Your task to perform on an android device: turn off smart reply in the gmail app Image 0: 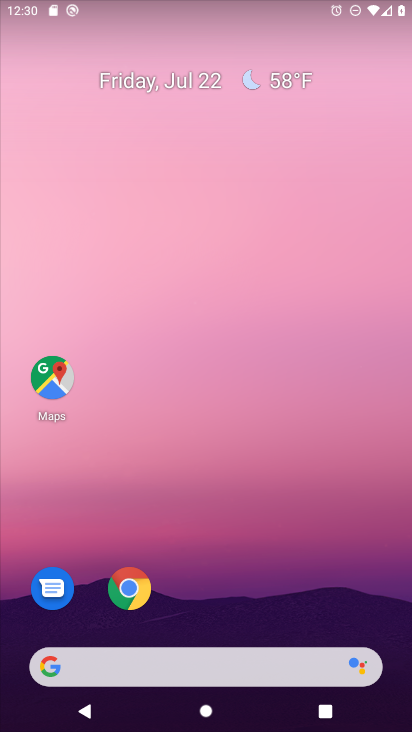
Step 0: drag from (296, 567) to (263, 20)
Your task to perform on an android device: turn off smart reply in the gmail app Image 1: 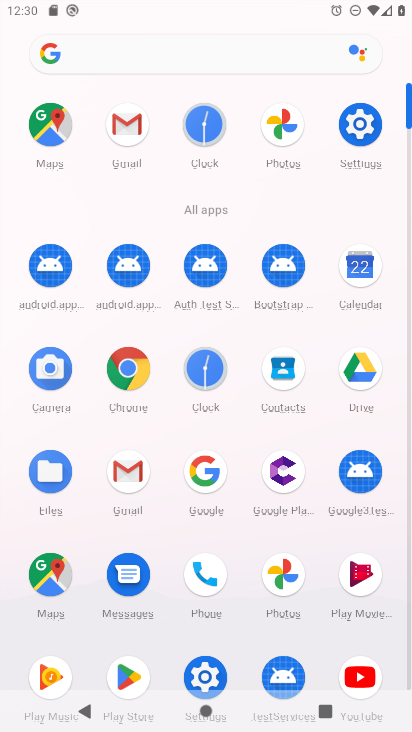
Step 1: click (131, 472)
Your task to perform on an android device: turn off smart reply in the gmail app Image 2: 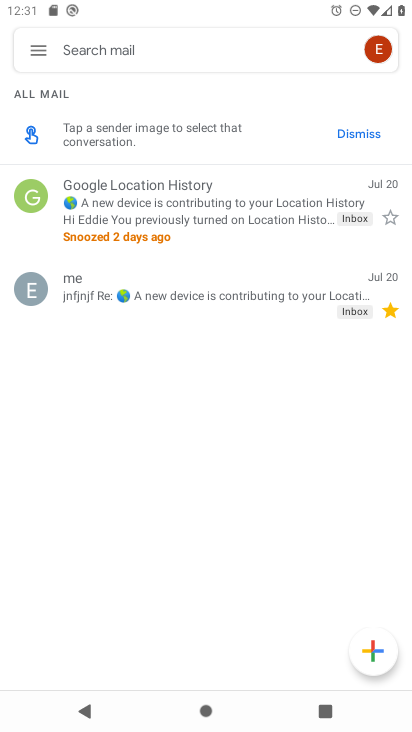
Step 2: click (27, 33)
Your task to perform on an android device: turn off smart reply in the gmail app Image 3: 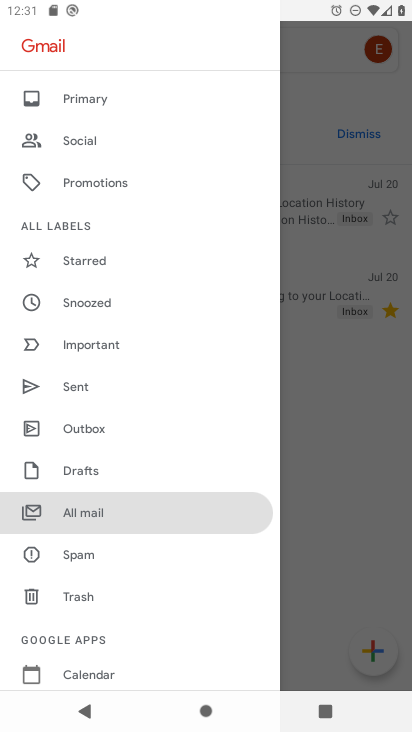
Step 3: drag from (89, 660) to (51, 274)
Your task to perform on an android device: turn off smart reply in the gmail app Image 4: 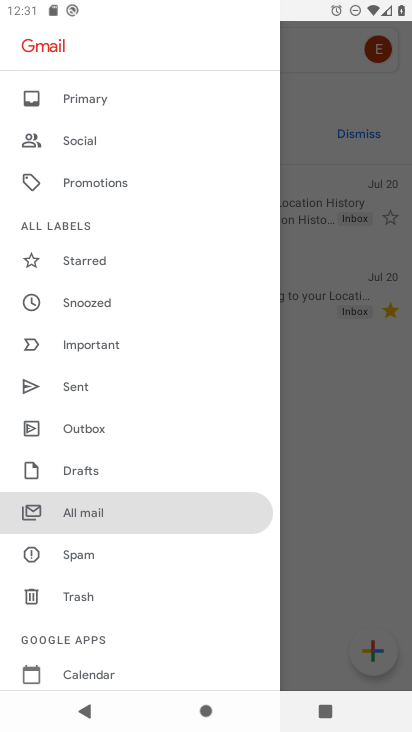
Step 4: drag from (80, 396) to (67, 30)
Your task to perform on an android device: turn off smart reply in the gmail app Image 5: 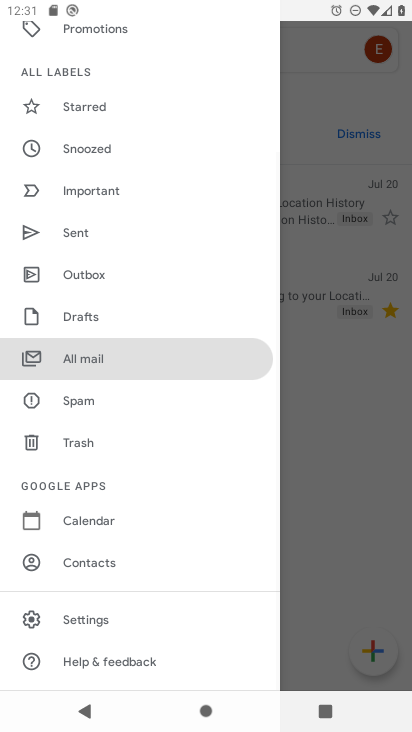
Step 5: click (85, 609)
Your task to perform on an android device: turn off smart reply in the gmail app Image 6: 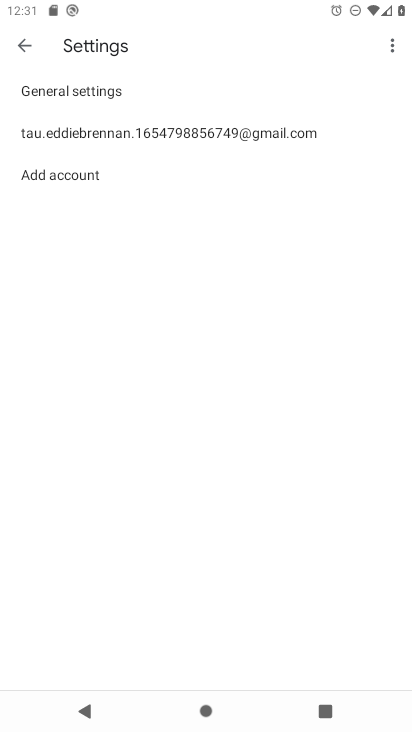
Step 6: click (181, 139)
Your task to perform on an android device: turn off smart reply in the gmail app Image 7: 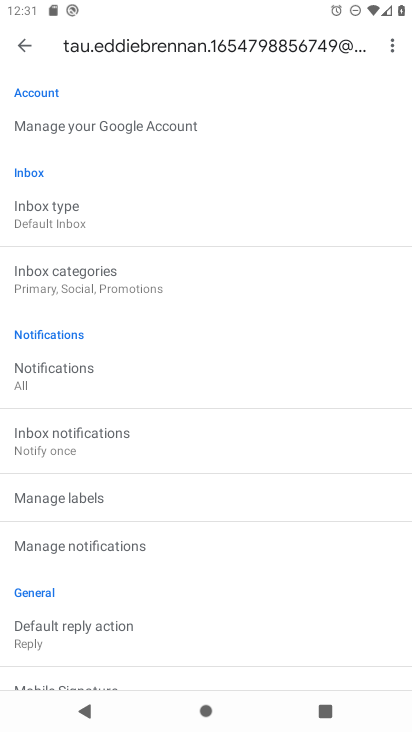
Step 7: drag from (158, 514) to (229, 5)
Your task to perform on an android device: turn off smart reply in the gmail app Image 8: 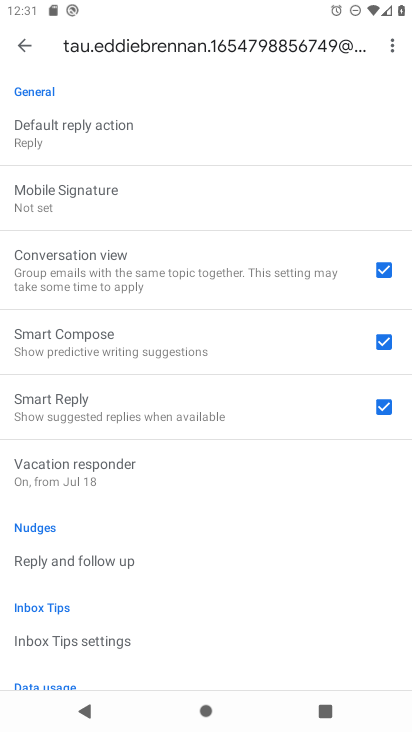
Step 8: click (387, 420)
Your task to perform on an android device: turn off smart reply in the gmail app Image 9: 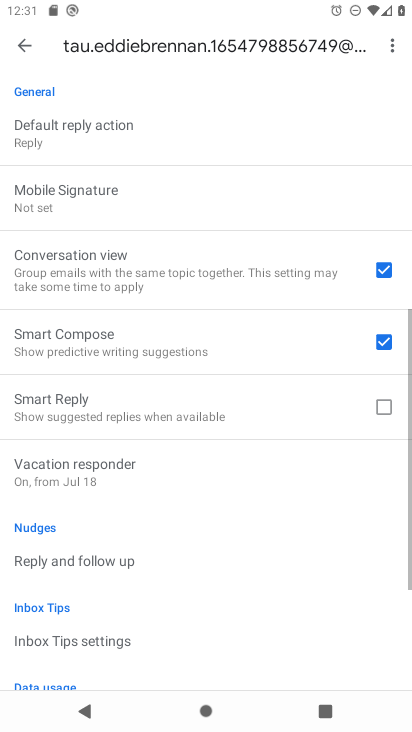
Step 9: task complete